Your task to perform on an android device: Open accessibility settings Image 0: 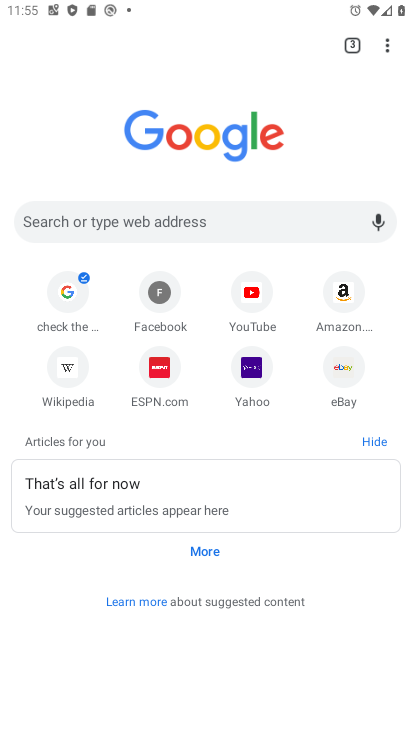
Step 0: press home button
Your task to perform on an android device: Open accessibility settings Image 1: 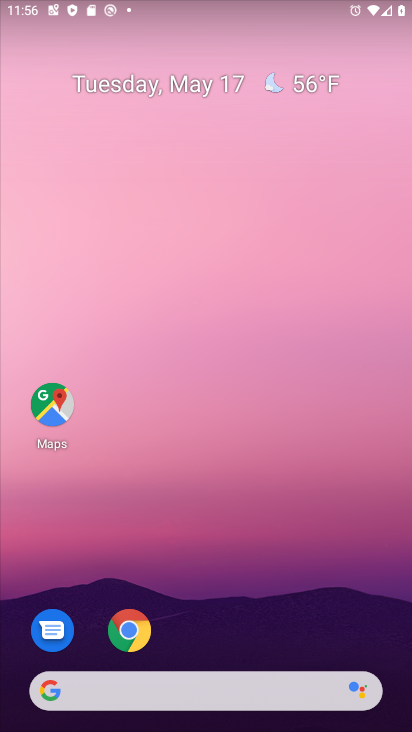
Step 1: drag from (342, 605) to (346, 146)
Your task to perform on an android device: Open accessibility settings Image 2: 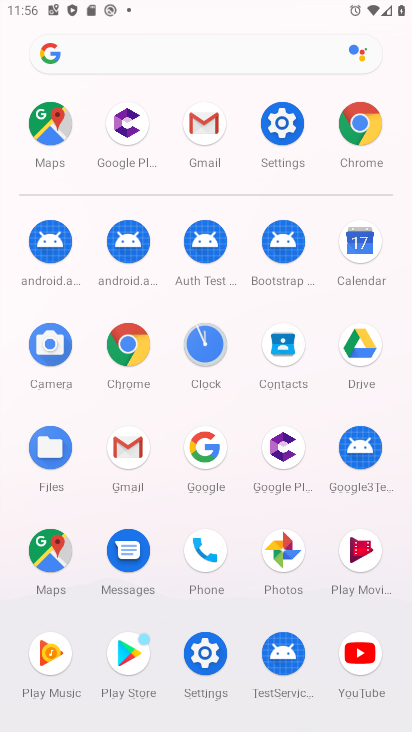
Step 2: click (205, 668)
Your task to perform on an android device: Open accessibility settings Image 3: 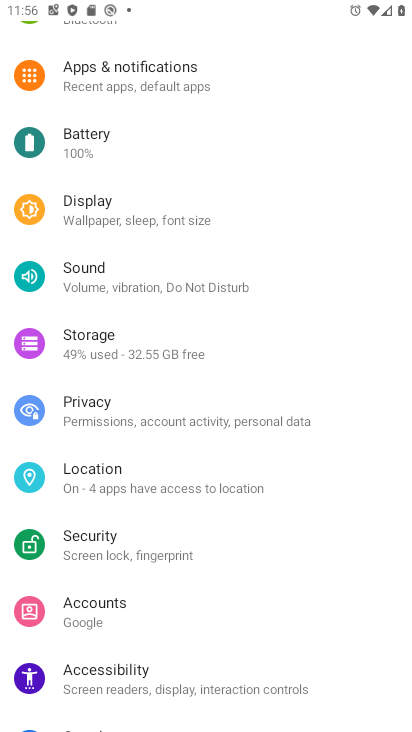
Step 3: click (230, 684)
Your task to perform on an android device: Open accessibility settings Image 4: 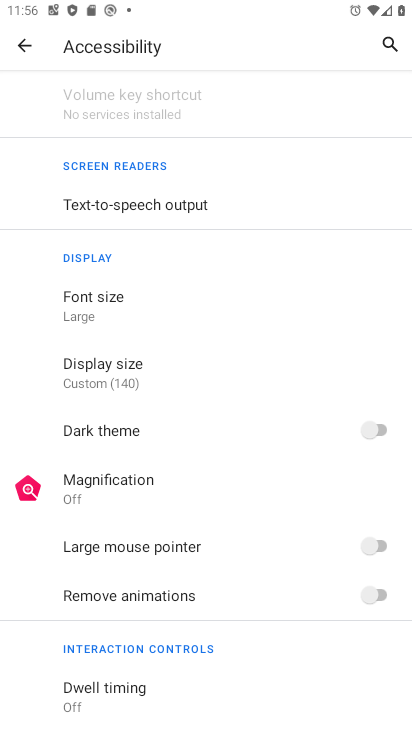
Step 4: task complete